Your task to perform on an android device: toggle notifications settings in the gmail app Image 0: 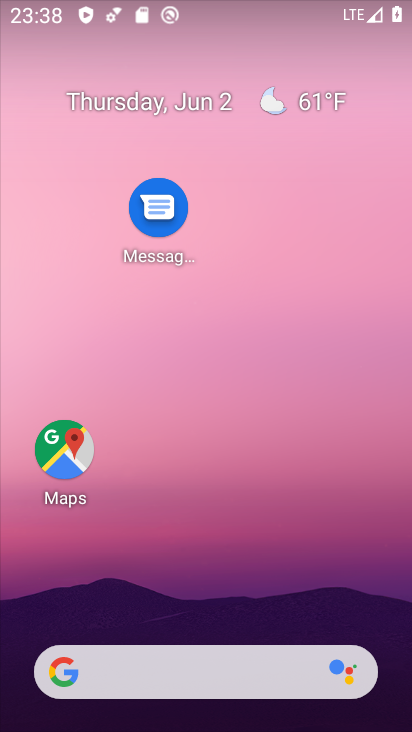
Step 0: drag from (197, 621) to (339, 1)
Your task to perform on an android device: toggle notifications settings in the gmail app Image 1: 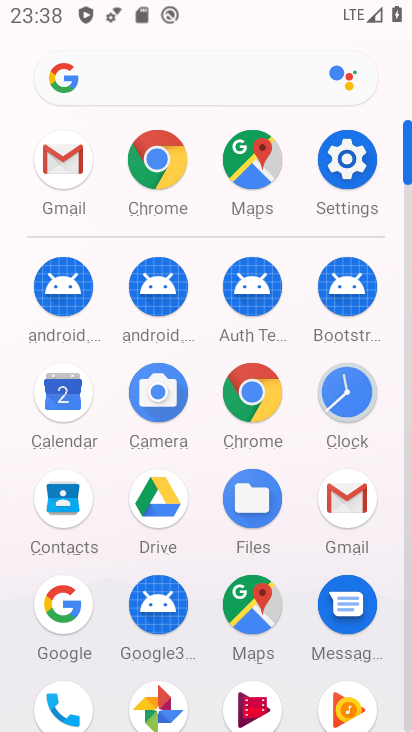
Step 1: click (352, 491)
Your task to perform on an android device: toggle notifications settings in the gmail app Image 2: 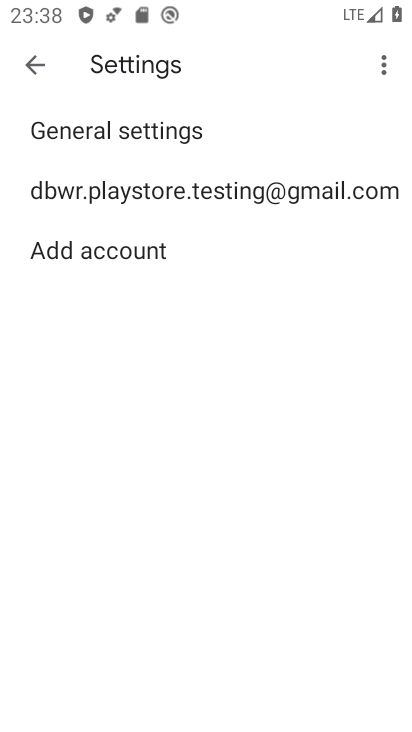
Step 2: click (70, 130)
Your task to perform on an android device: toggle notifications settings in the gmail app Image 3: 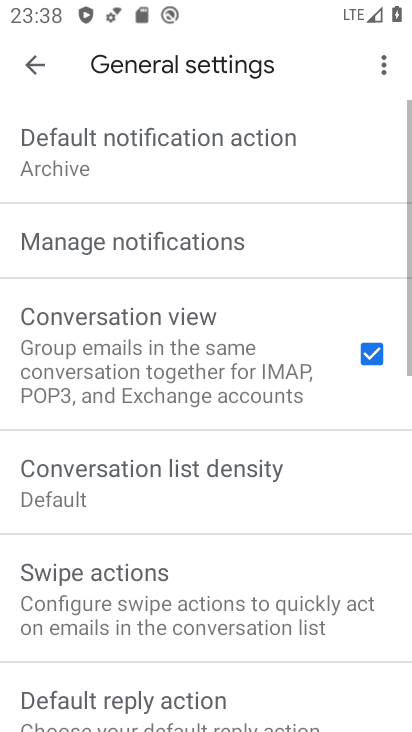
Step 3: click (167, 256)
Your task to perform on an android device: toggle notifications settings in the gmail app Image 4: 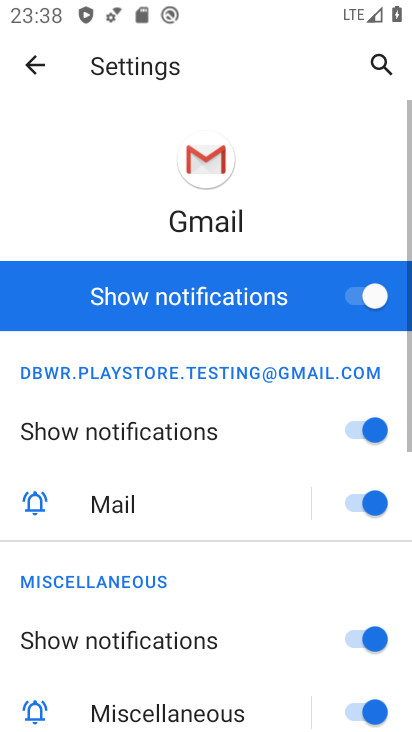
Step 4: click (369, 298)
Your task to perform on an android device: toggle notifications settings in the gmail app Image 5: 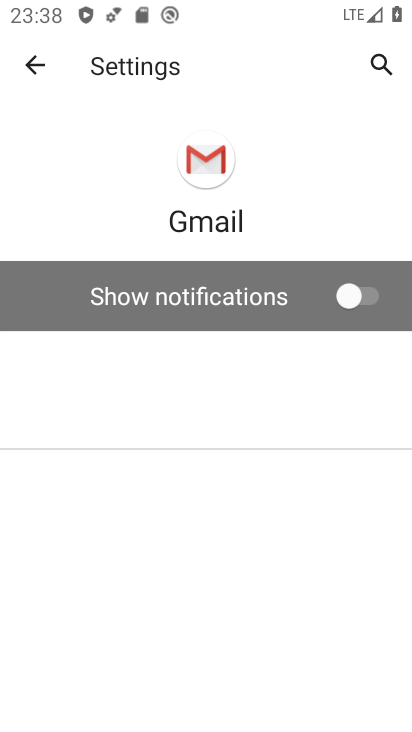
Step 5: task complete